Your task to perform on an android device: Open ESPN.com Image 0: 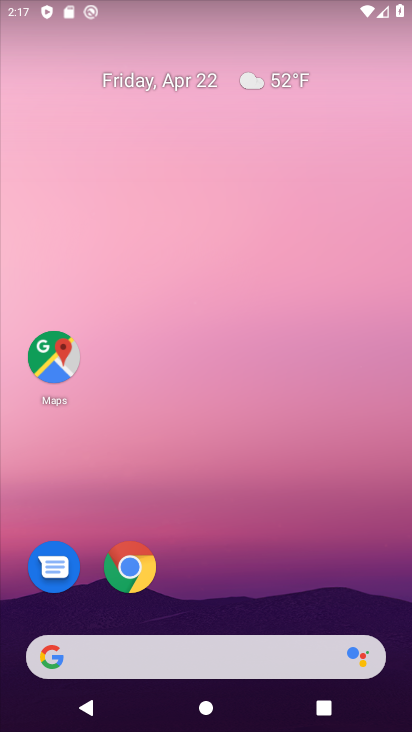
Step 0: click (138, 569)
Your task to perform on an android device: Open ESPN.com Image 1: 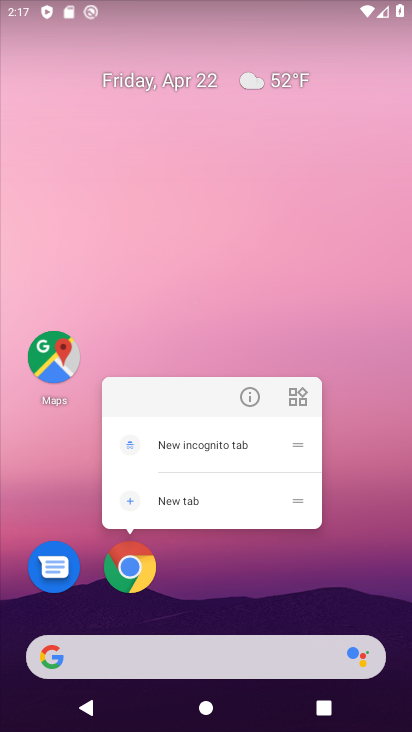
Step 1: click (128, 554)
Your task to perform on an android device: Open ESPN.com Image 2: 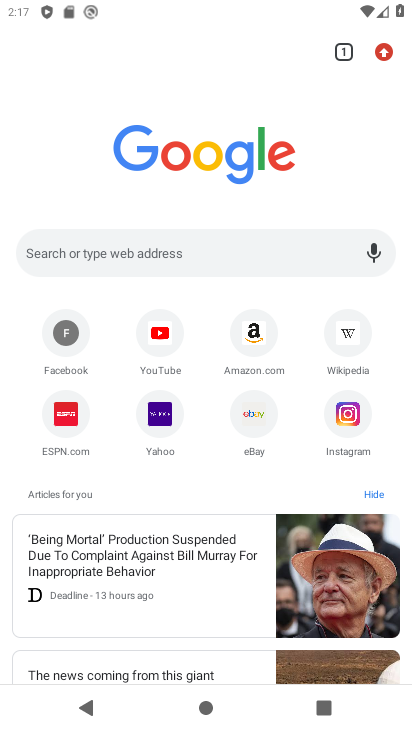
Step 2: click (67, 419)
Your task to perform on an android device: Open ESPN.com Image 3: 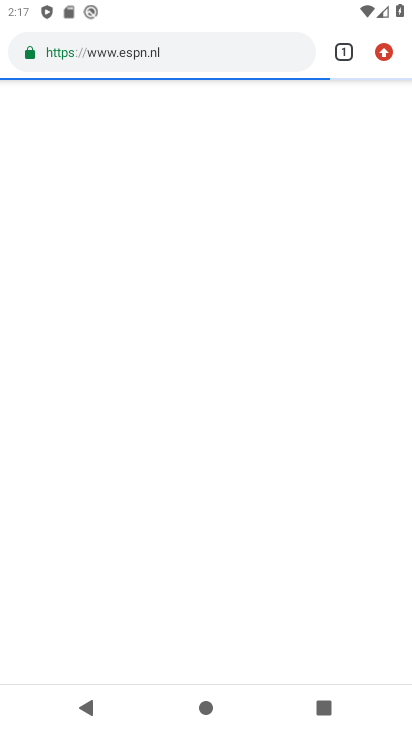
Step 3: task complete